Your task to perform on an android device: Open display settings Image 0: 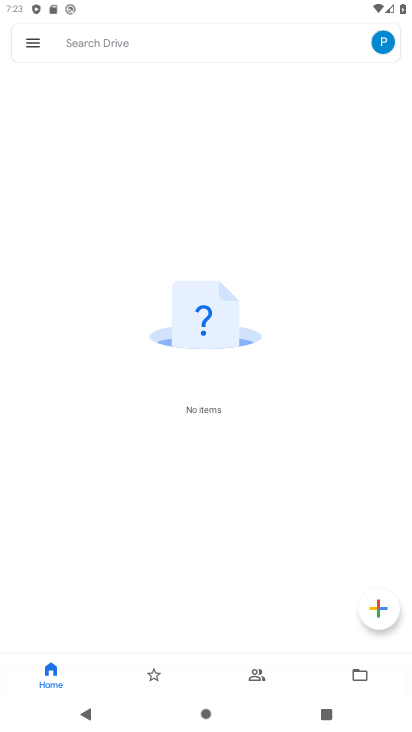
Step 0: press home button
Your task to perform on an android device: Open display settings Image 1: 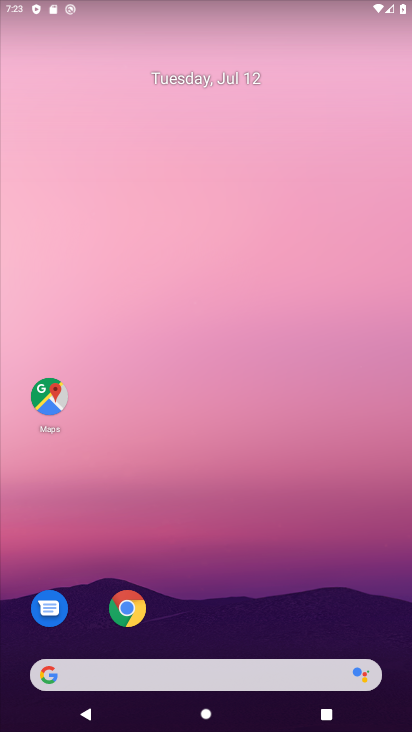
Step 1: drag from (196, 427) to (261, 145)
Your task to perform on an android device: Open display settings Image 2: 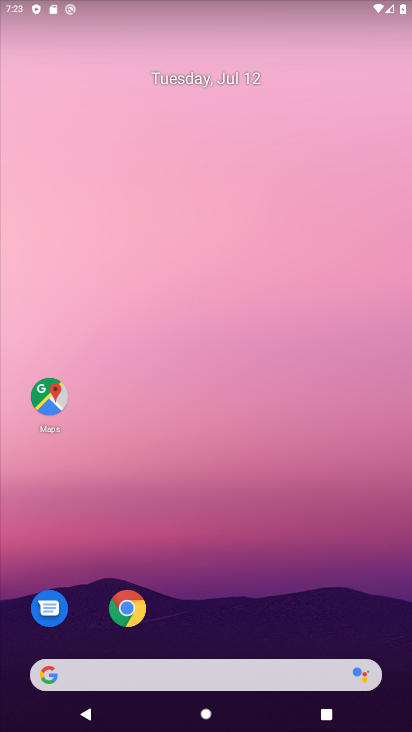
Step 2: drag from (162, 206) to (180, 131)
Your task to perform on an android device: Open display settings Image 3: 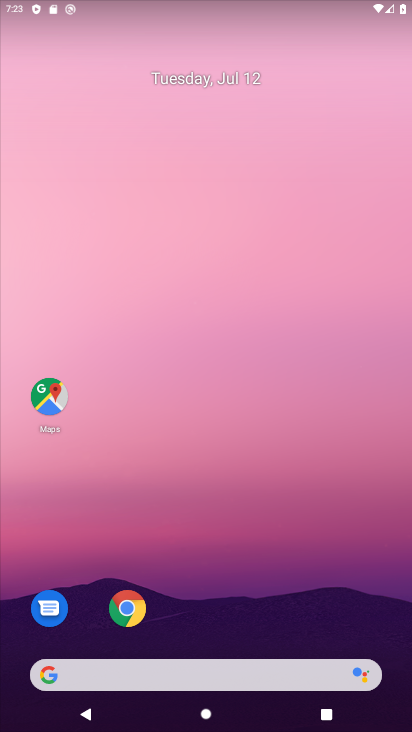
Step 3: drag from (167, 614) to (135, 27)
Your task to perform on an android device: Open display settings Image 4: 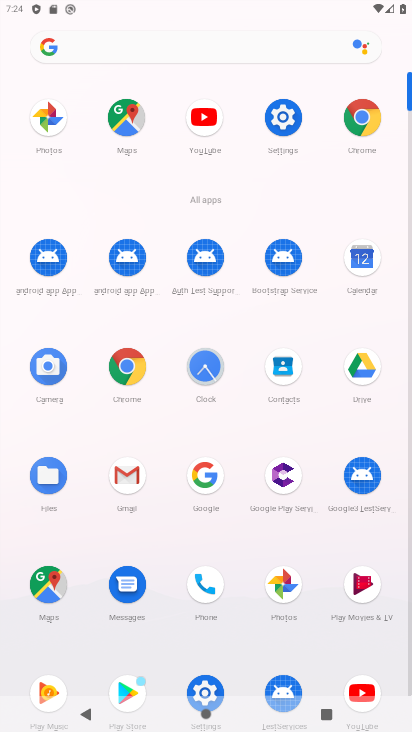
Step 4: click (280, 120)
Your task to perform on an android device: Open display settings Image 5: 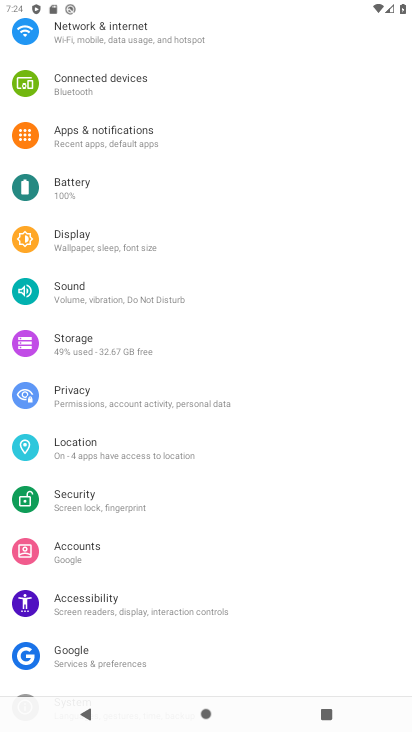
Step 5: click (74, 236)
Your task to perform on an android device: Open display settings Image 6: 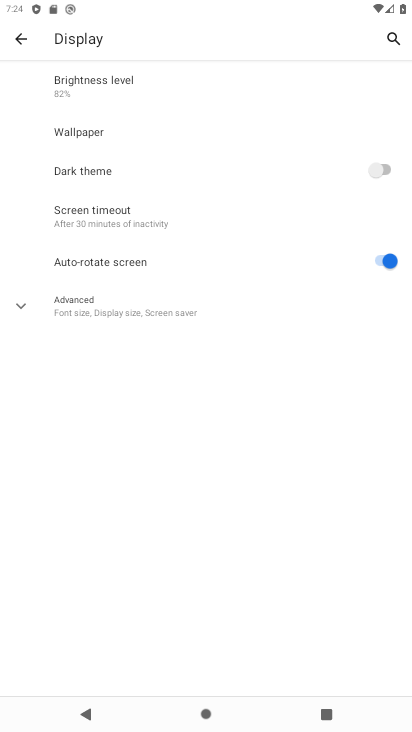
Step 6: task complete